Your task to perform on an android device: snooze an email in the gmail app Image 0: 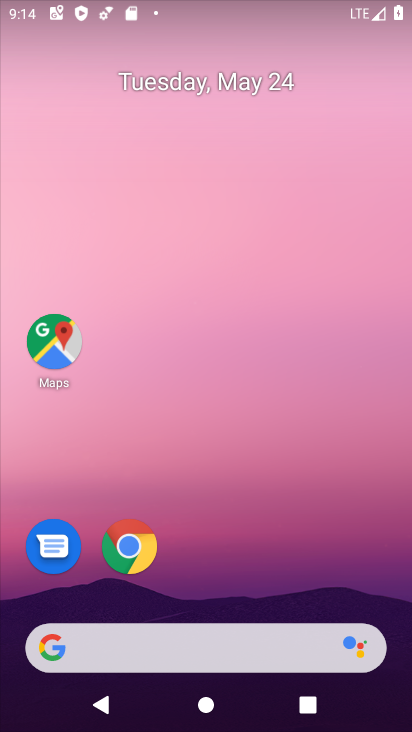
Step 0: drag from (250, 560) to (267, 21)
Your task to perform on an android device: snooze an email in the gmail app Image 1: 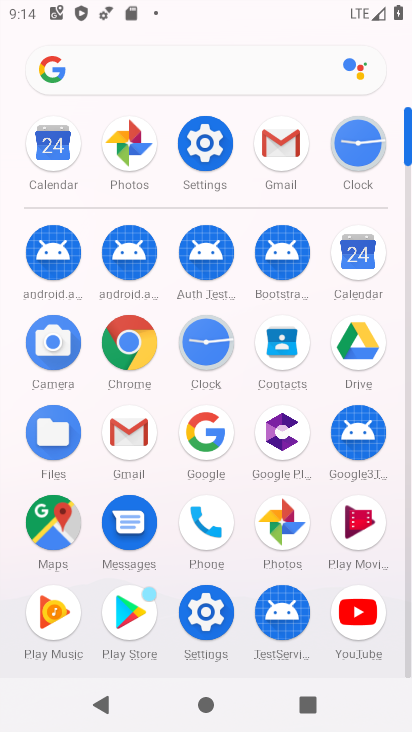
Step 1: click (284, 132)
Your task to perform on an android device: snooze an email in the gmail app Image 2: 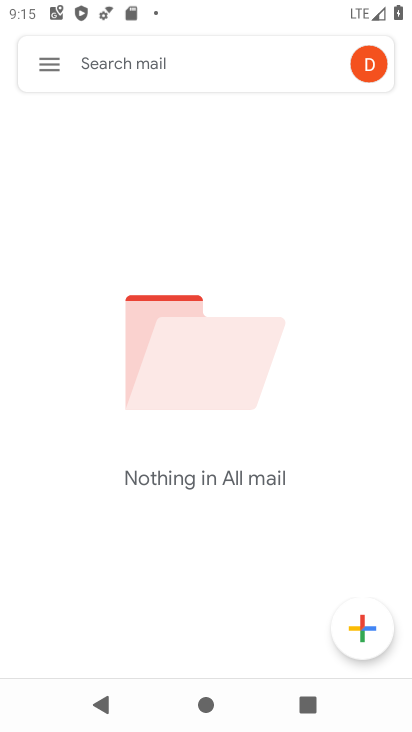
Step 2: task complete